Your task to perform on an android device: toggle javascript in the chrome app Image 0: 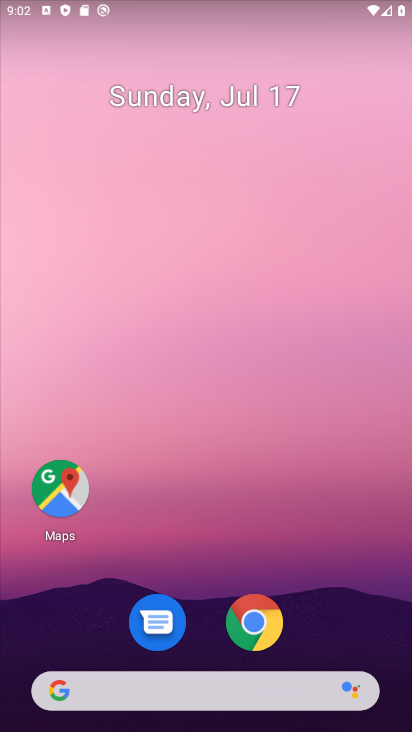
Step 0: click (266, 614)
Your task to perform on an android device: toggle javascript in the chrome app Image 1: 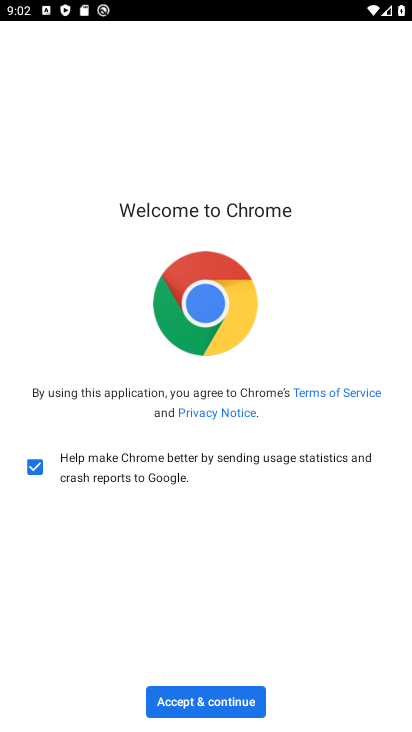
Step 1: click (191, 705)
Your task to perform on an android device: toggle javascript in the chrome app Image 2: 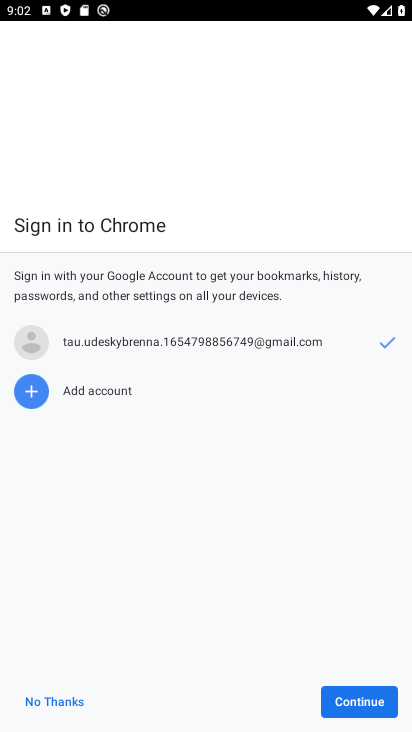
Step 2: click (363, 715)
Your task to perform on an android device: toggle javascript in the chrome app Image 3: 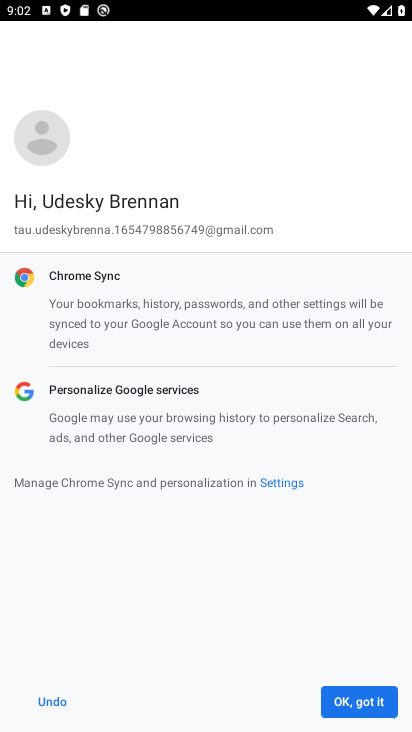
Step 3: click (354, 701)
Your task to perform on an android device: toggle javascript in the chrome app Image 4: 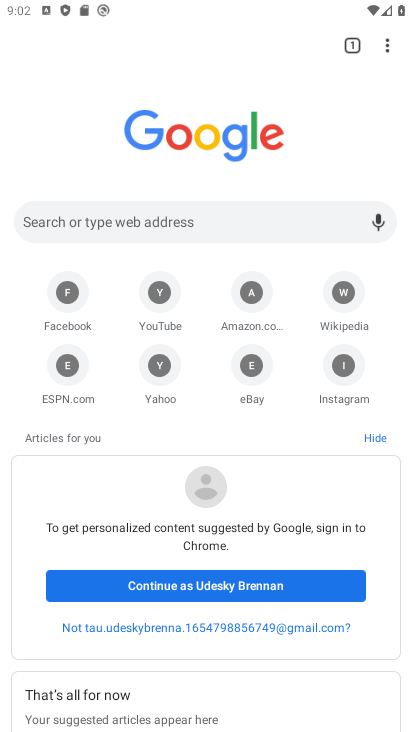
Step 4: click (389, 38)
Your task to perform on an android device: toggle javascript in the chrome app Image 5: 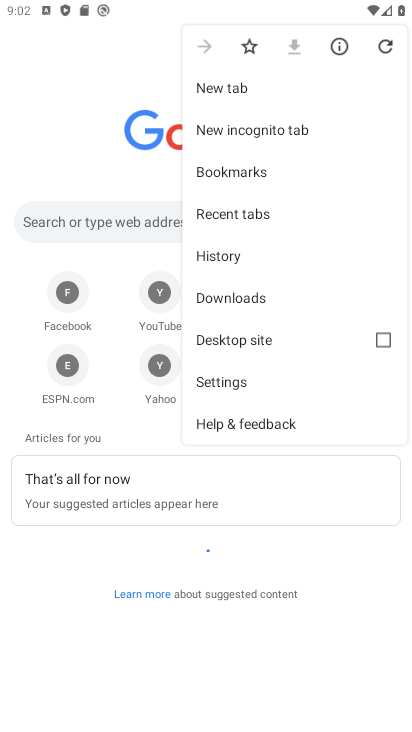
Step 5: click (219, 378)
Your task to perform on an android device: toggle javascript in the chrome app Image 6: 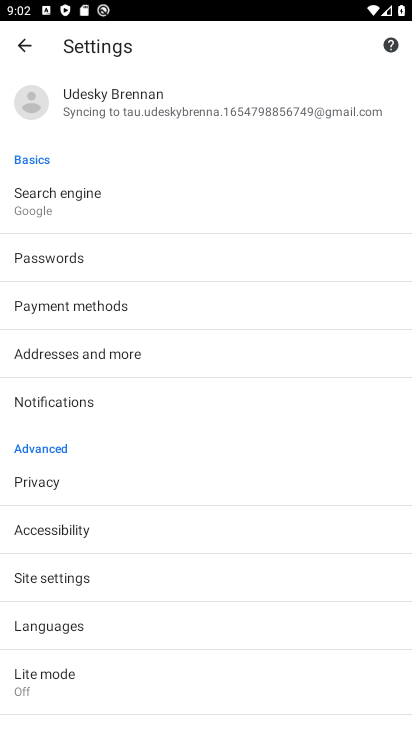
Step 6: click (84, 578)
Your task to perform on an android device: toggle javascript in the chrome app Image 7: 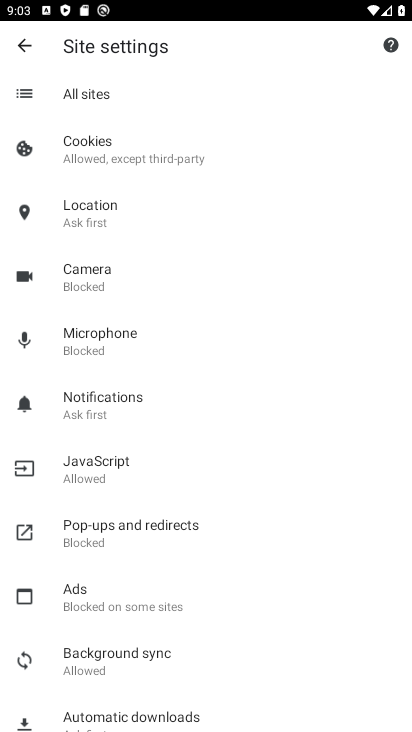
Step 7: click (91, 469)
Your task to perform on an android device: toggle javascript in the chrome app Image 8: 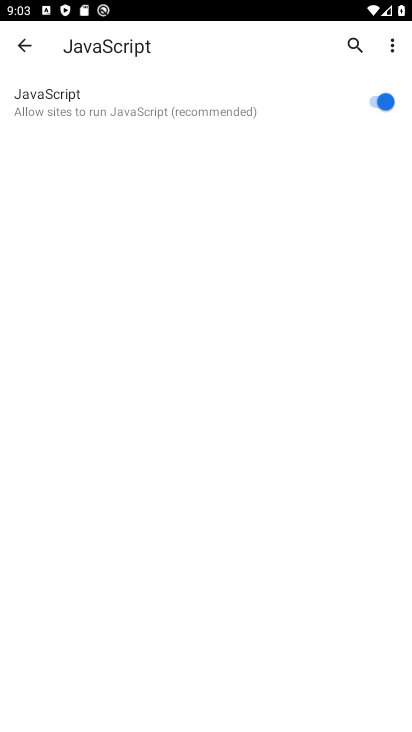
Step 8: click (377, 99)
Your task to perform on an android device: toggle javascript in the chrome app Image 9: 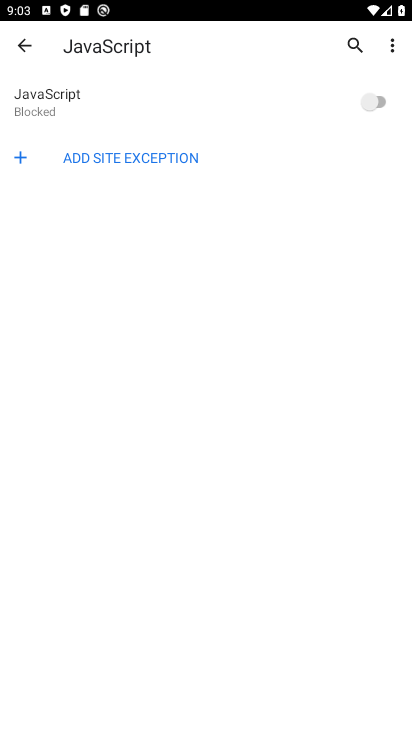
Step 9: task complete